Your task to perform on an android device: Open Wikipedia Image 0: 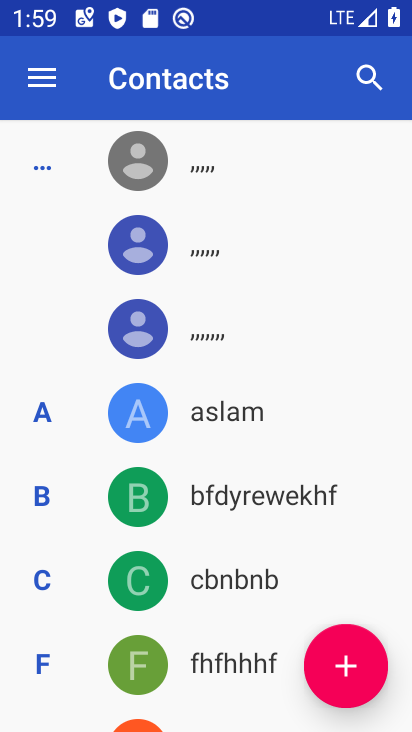
Step 0: press home button
Your task to perform on an android device: Open Wikipedia Image 1: 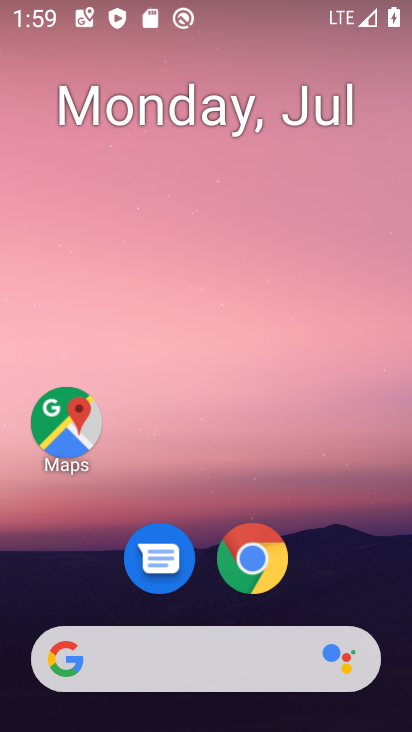
Step 1: drag from (368, 559) to (382, 72)
Your task to perform on an android device: Open Wikipedia Image 2: 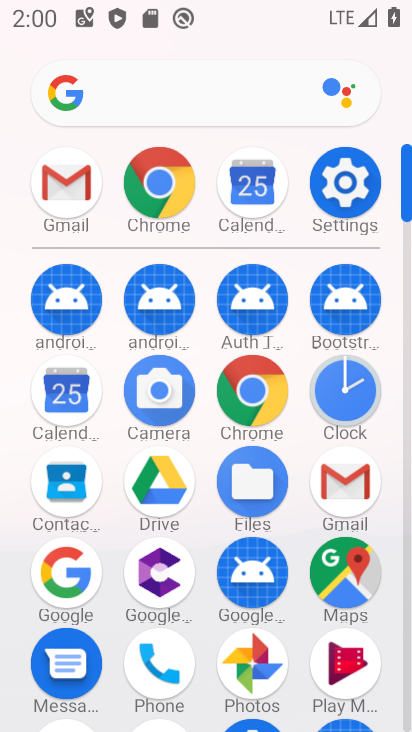
Step 2: click (259, 400)
Your task to perform on an android device: Open Wikipedia Image 3: 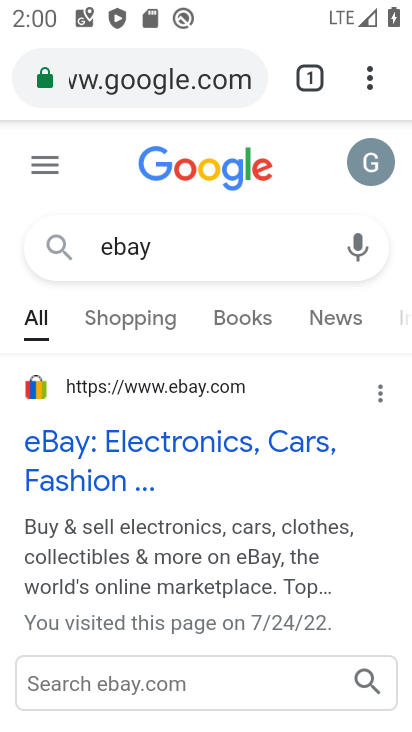
Step 3: click (187, 81)
Your task to perform on an android device: Open Wikipedia Image 4: 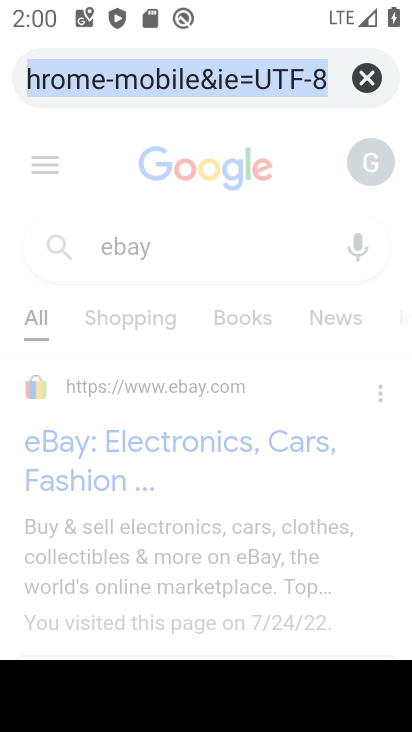
Step 4: type "wikipedia"
Your task to perform on an android device: Open Wikipedia Image 5: 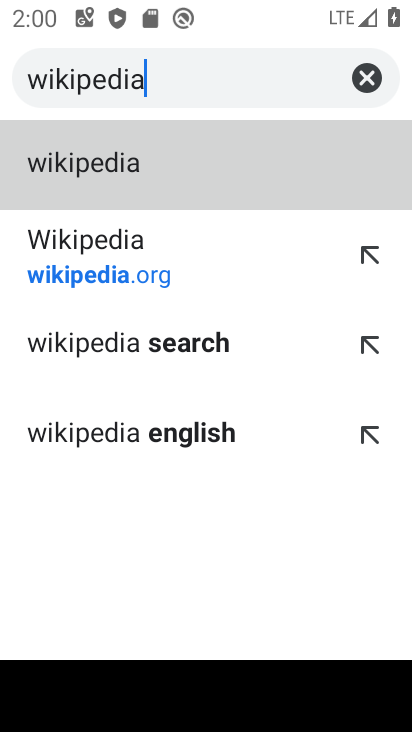
Step 5: click (164, 172)
Your task to perform on an android device: Open Wikipedia Image 6: 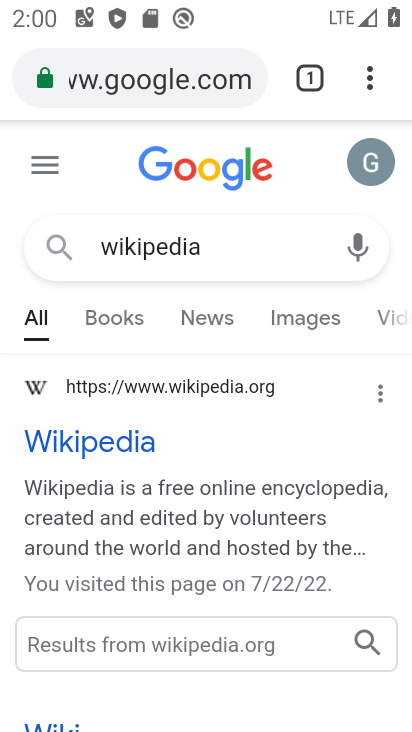
Step 6: task complete